Your task to perform on an android device: check android version Image 0: 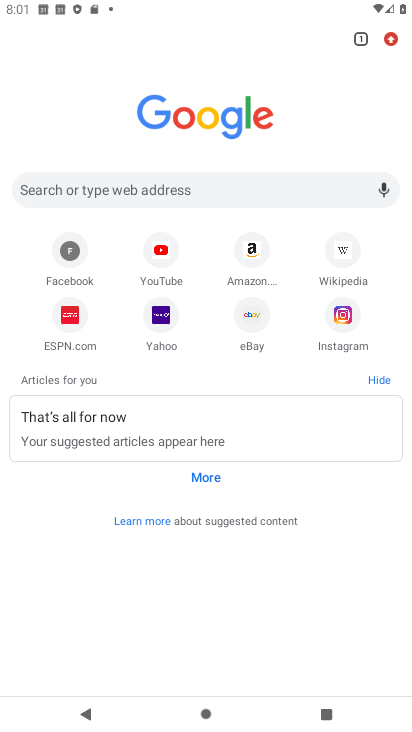
Step 0: press home button
Your task to perform on an android device: check android version Image 1: 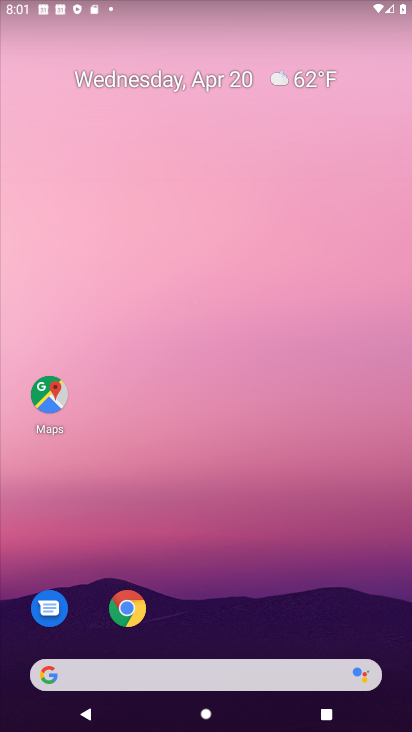
Step 1: drag from (181, 611) to (195, 138)
Your task to perform on an android device: check android version Image 2: 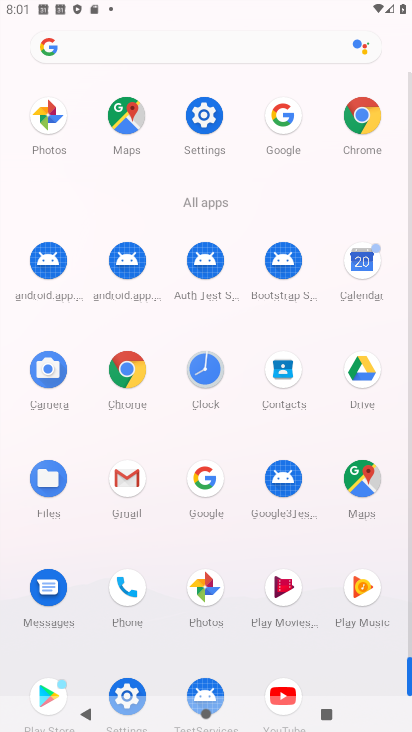
Step 2: click (198, 131)
Your task to perform on an android device: check android version Image 3: 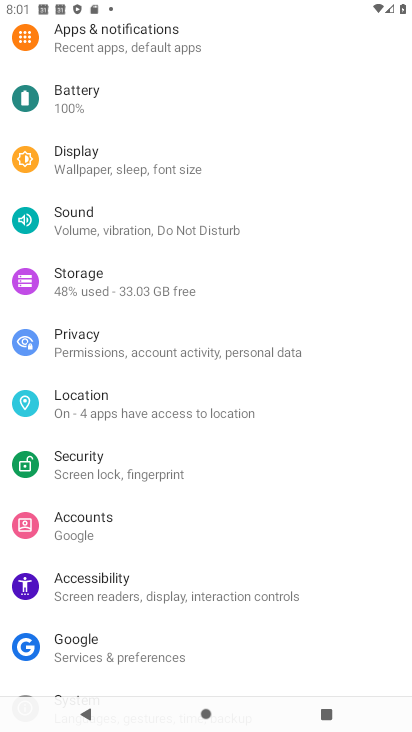
Step 3: drag from (180, 637) to (205, 131)
Your task to perform on an android device: check android version Image 4: 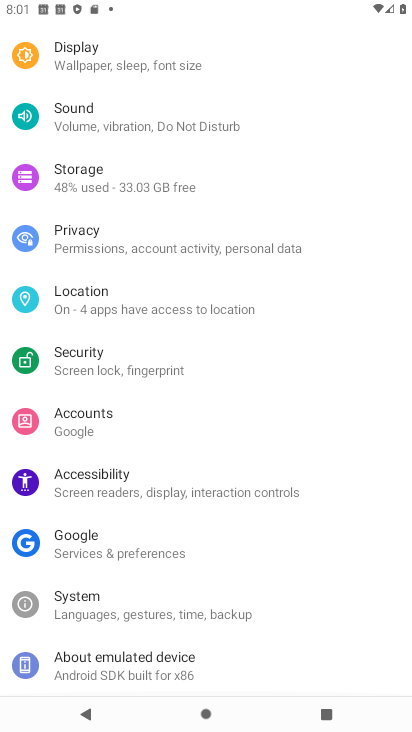
Step 4: click (133, 672)
Your task to perform on an android device: check android version Image 5: 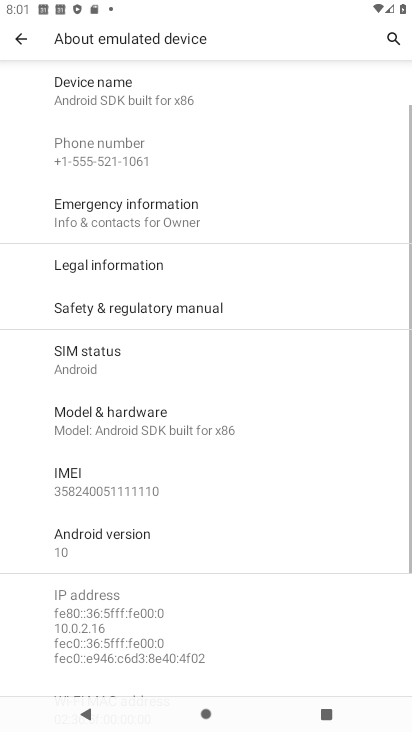
Step 5: task complete